Your task to perform on an android device: toggle show notifications on the lock screen Image 0: 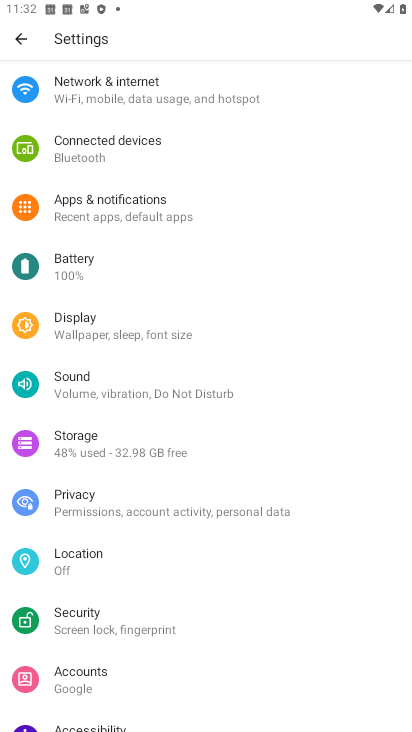
Step 0: press home button
Your task to perform on an android device: toggle show notifications on the lock screen Image 1: 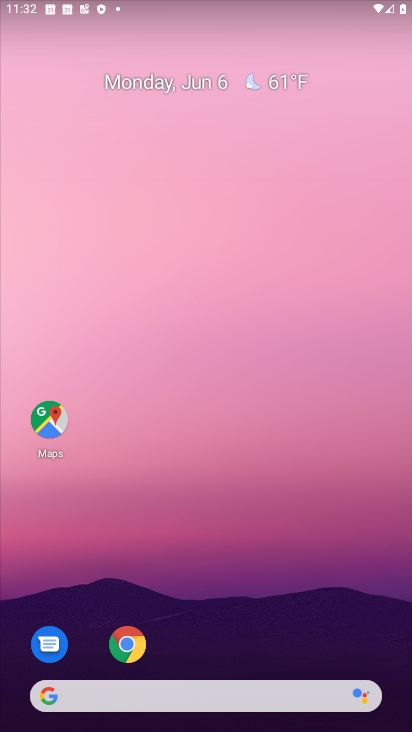
Step 1: drag from (178, 562) to (123, 90)
Your task to perform on an android device: toggle show notifications on the lock screen Image 2: 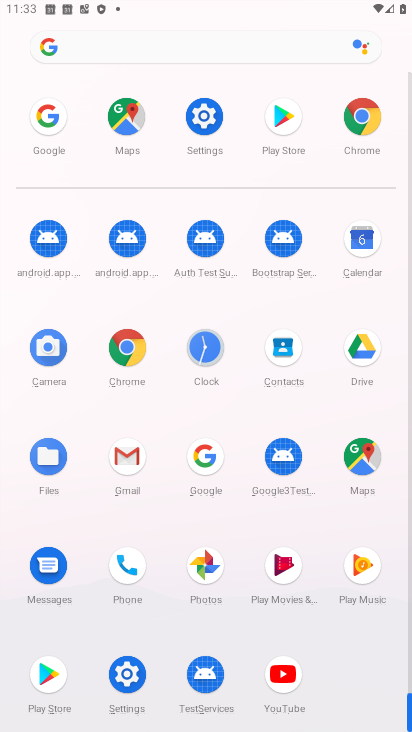
Step 2: click (207, 118)
Your task to perform on an android device: toggle show notifications on the lock screen Image 3: 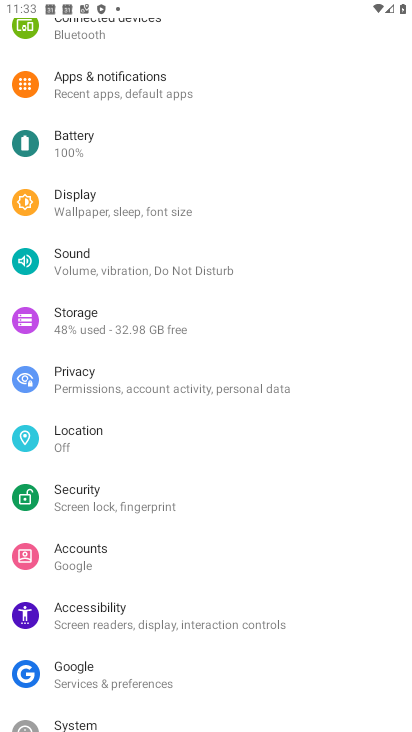
Step 3: click (207, 78)
Your task to perform on an android device: toggle show notifications on the lock screen Image 4: 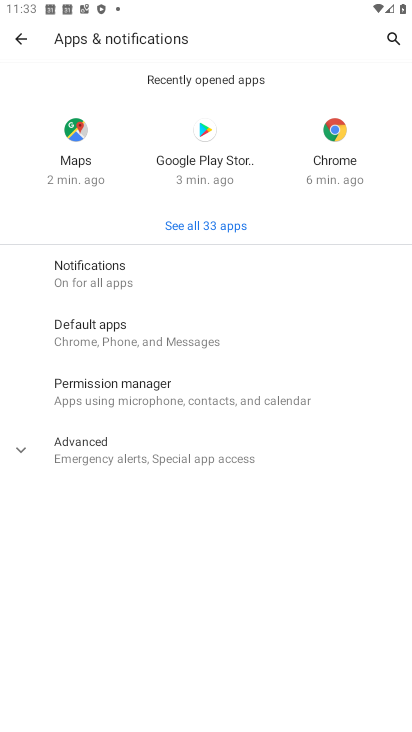
Step 4: click (208, 263)
Your task to perform on an android device: toggle show notifications on the lock screen Image 5: 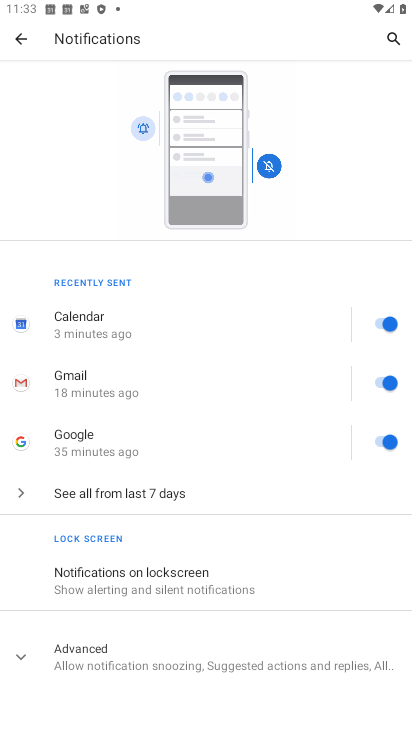
Step 5: click (173, 608)
Your task to perform on an android device: toggle show notifications on the lock screen Image 6: 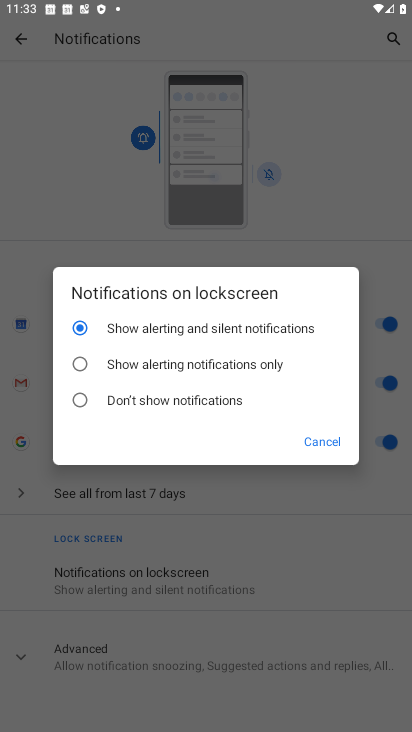
Step 6: task complete